Your task to perform on an android device: find photos in the google photos app Image 0: 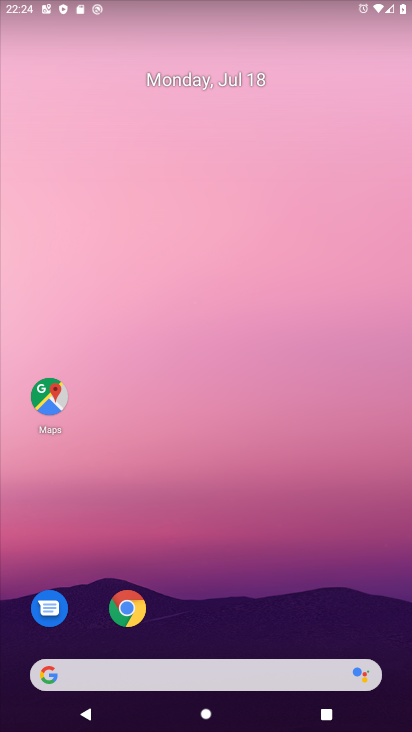
Step 0: click (259, 4)
Your task to perform on an android device: find photos in the google photos app Image 1: 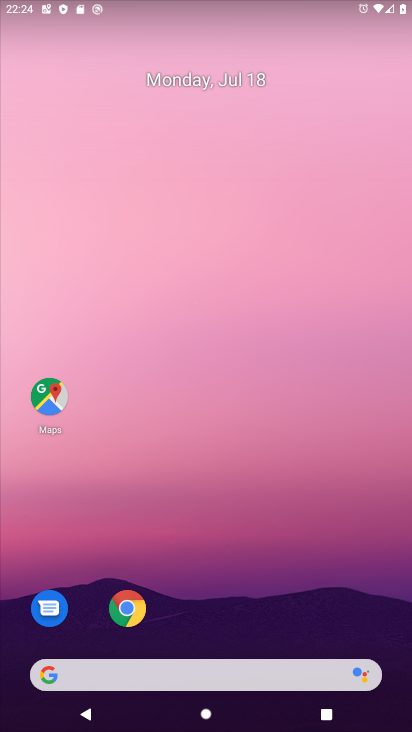
Step 1: drag from (15, 644) to (163, 194)
Your task to perform on an android device: find photos in the google photos app Image 2: 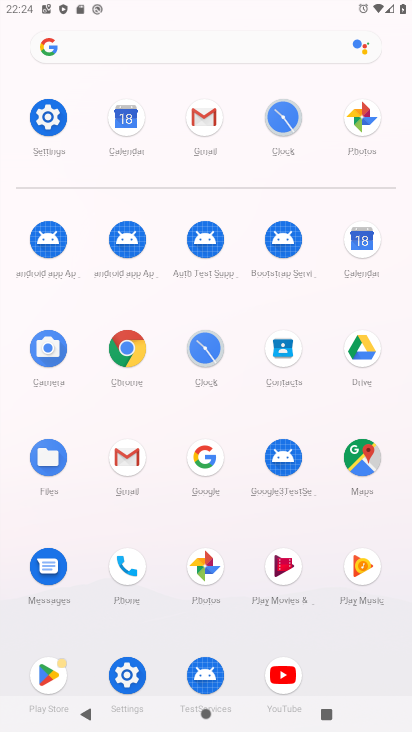
Step 2: click (208, 571)
Your task to perform on an android device: find photos in the google photos app Image 3: 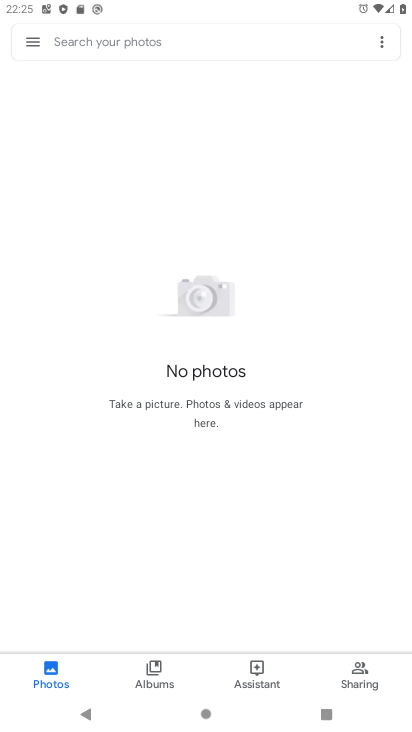
Step 3: task complete